Your task to perform on an android device: change text size in settings app Image 0: 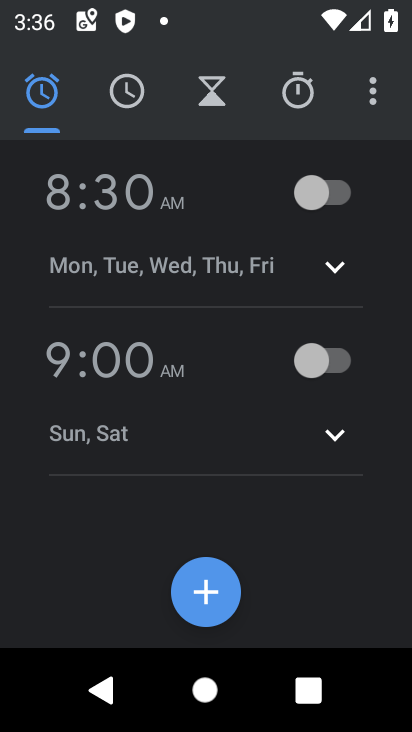
Step 0: press home button
Your task to perform on an android device: change text size in settings app Image 1: 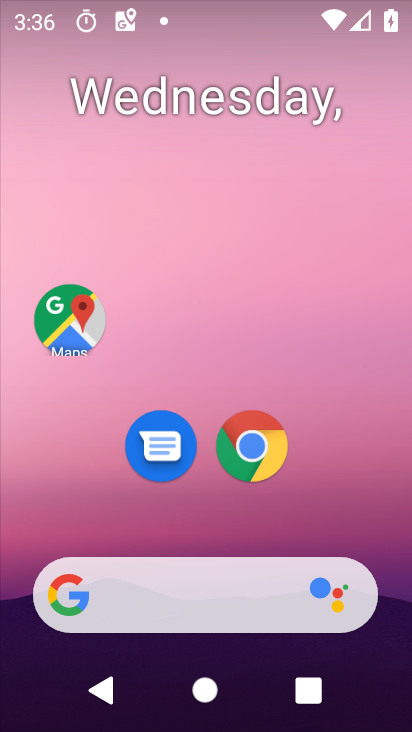
Step 1: drag from (204, 499) to (204, 64)
Your task to perform on an android device: change text size in settings app Image 2: 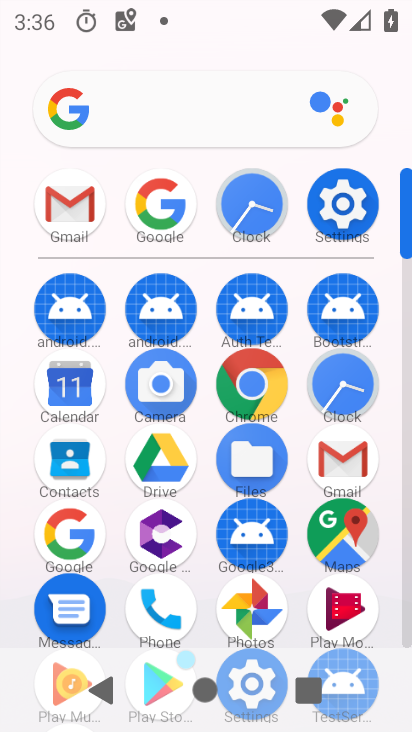
Step 2: click (348, 192)
Your task to perform on an android device: change text size in settings app Image 3: 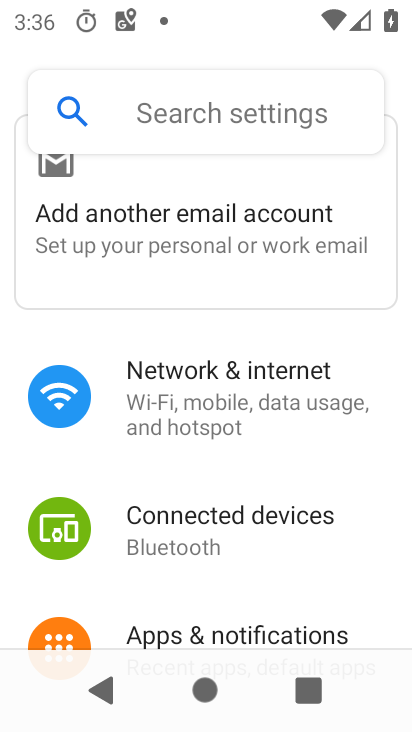
Step 3: drag from (239, 589) to (323, 43)
Your task to perform on an android device: change text size in settings app Image 4: 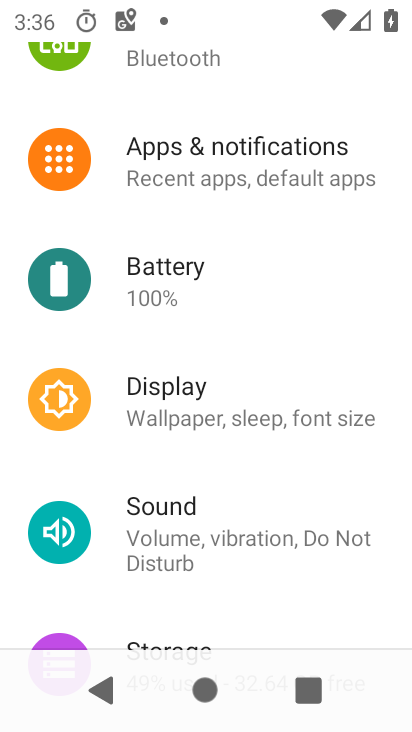
Step 4: click (168, 416)
Your task to perform on an android device: change text size in settings app Image 5: 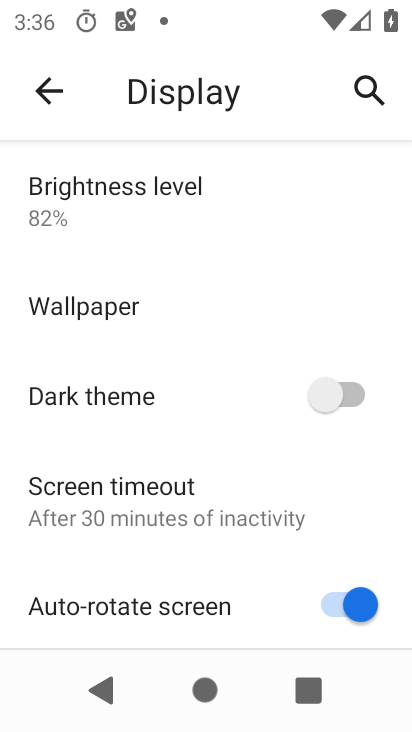
Step 5: drag from (192, 513) to (187, 325)
Your task to perform on an android device: change text size in settings app Image 6: 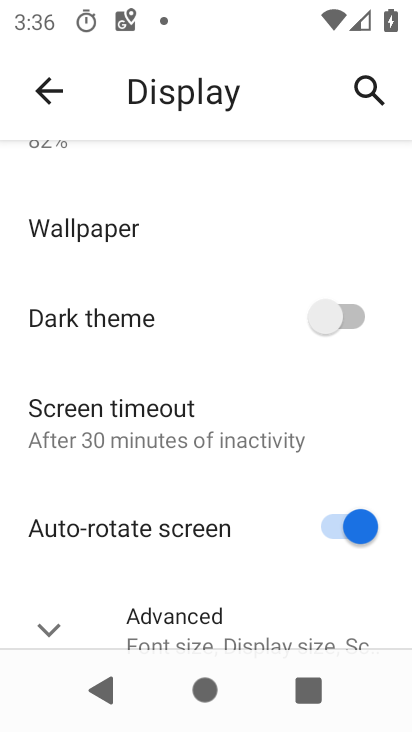
Step 6: click (160, 634)
Your task to perform on an android device: change text size in settings app Image 7: 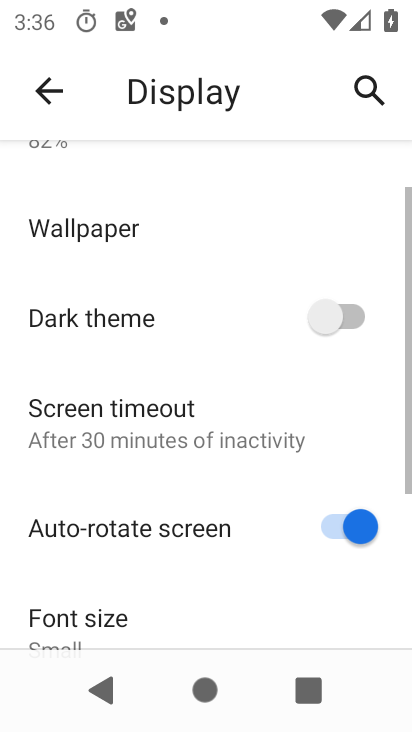
Step 7: click (146, 613)
Your task to perform on an android device: change text size in settings app Image 8: 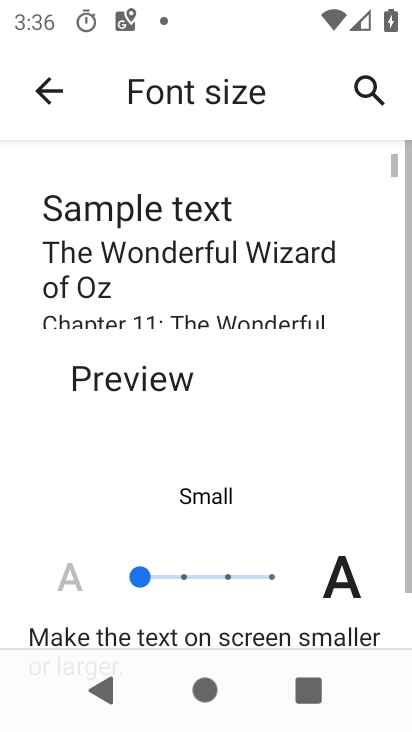
Step 8: task complete